Your task to perform on an android device: find photos in the google photos app Image 0: 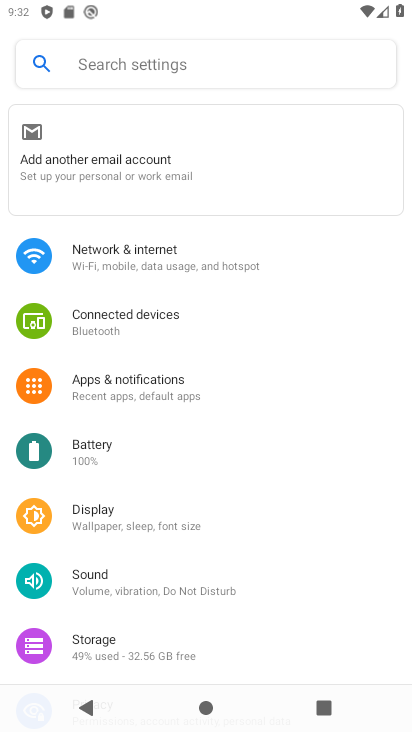
Step 0: drag from (345, 543) to (334, 378)
Your task to perform on an android device: find photos in the google photos app Image 1: 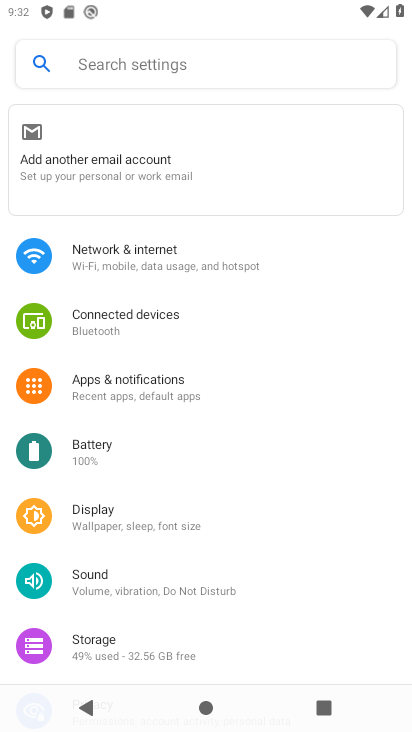
Step 1: drag from (346, 649) to (347, 324)
Your task to perform on an android device: find photos in the google photos app Image 2: 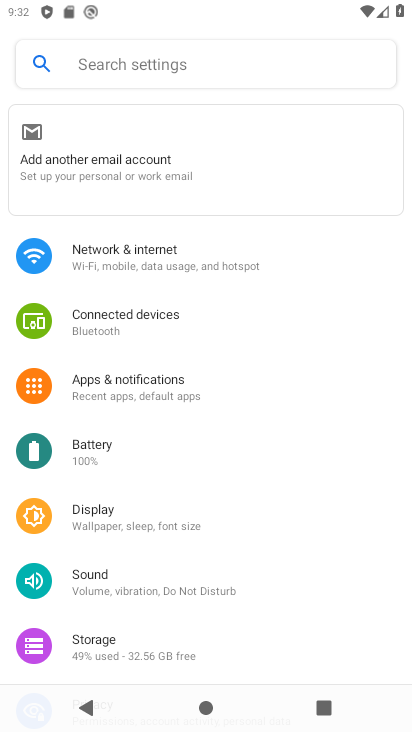
Step 2: click (325, 239)
Your task to perform on an android device: find photos in the google photos app Image 3: 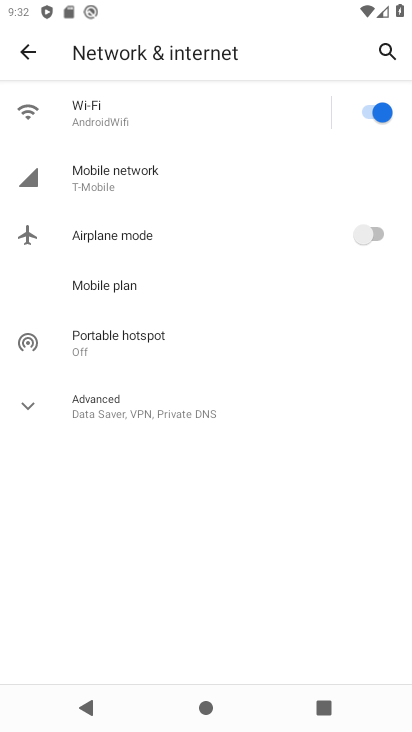
Step 3: drag from (359, 637) to (353, 374)
Your task to perform on an android device: find photos in the google photos app Image 4: 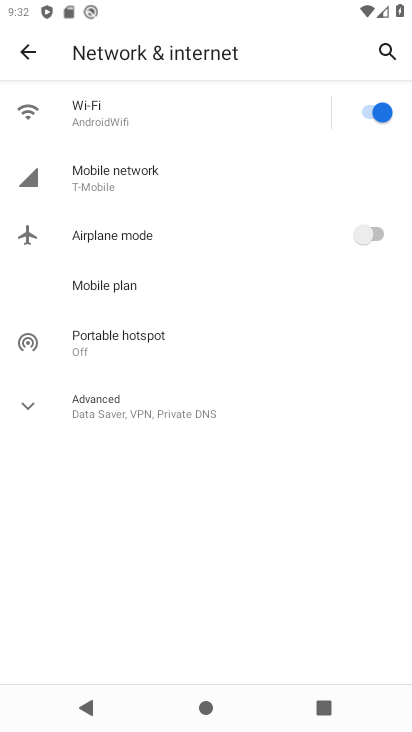
Step 4: click (29, 48)
Your task to perform on an android device: find photos in the google photos app Image 5: 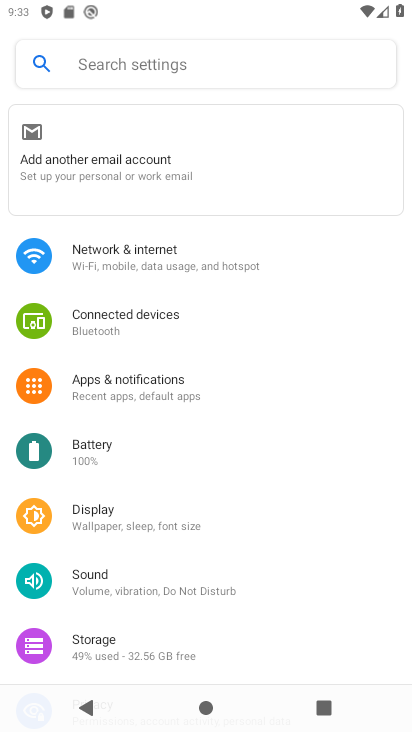
Step 5: drag from (330, 561) to (314, 261)
Your task to perform on an android device: find photos in the google photos app Image 6: 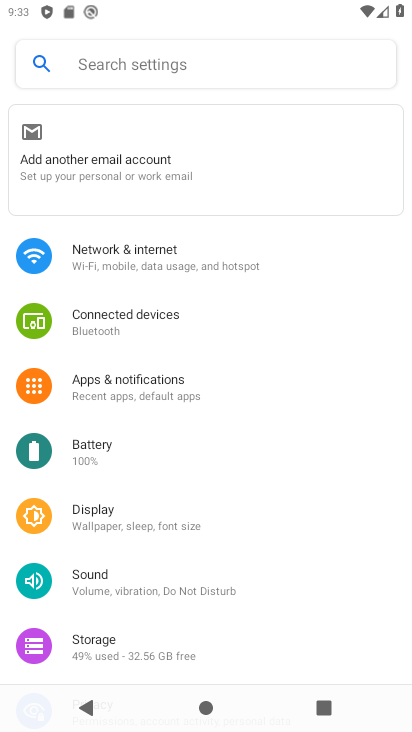
Step 6: press home button
Your task to perform on an android device: find photos in the google photos app Image 7: 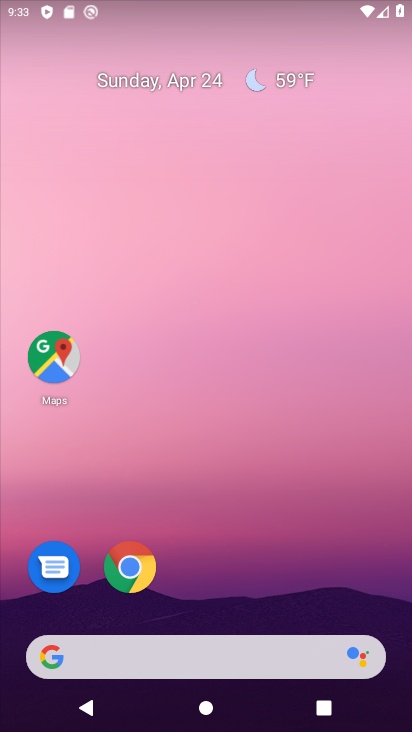
Step 7: click (352, 223)
Your task to perform on an android device: find photos in the google photos app Image 8: 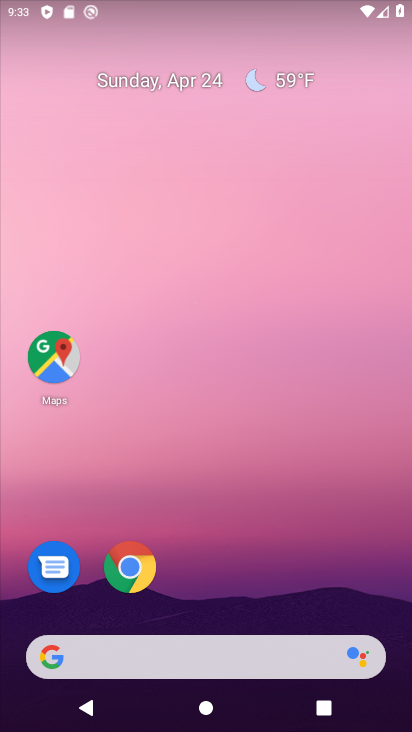
Step 8: drag from (382, 586) to (380, 246)
Your task to perform on an android device: find photos in the google photos app Image 9: 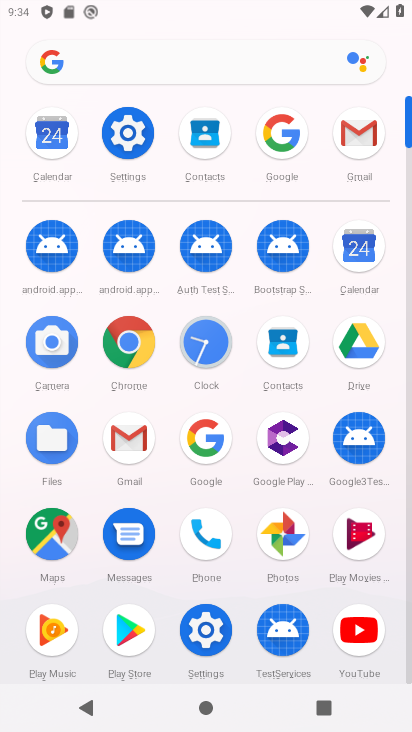
Step 9: click (287, 543)
Your task to perform on an android device: find photos in the google photos app Image 10: 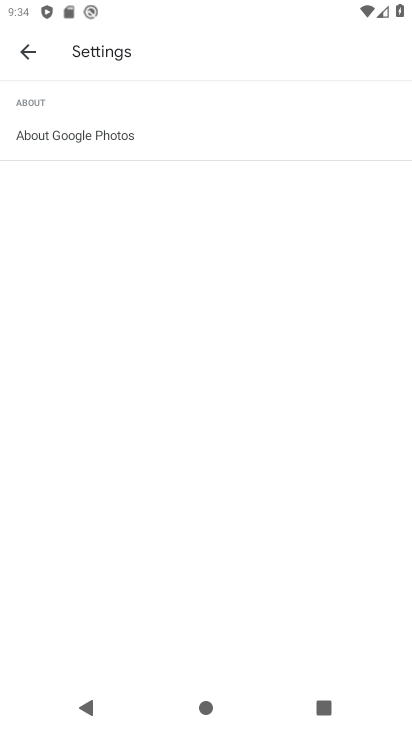
Step 10: click (24, 52)
Your task to perform on an android device: find photos in the google photos app Image 11: 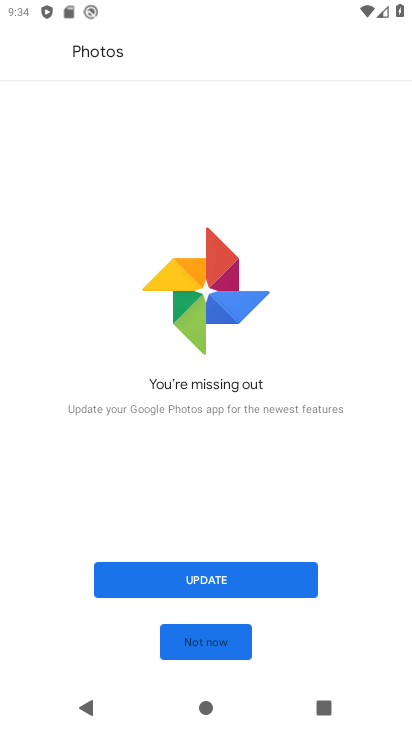
Step 11: click (143, 571)
Your task to perform on an android device: find photos in the google photos app Image 12: 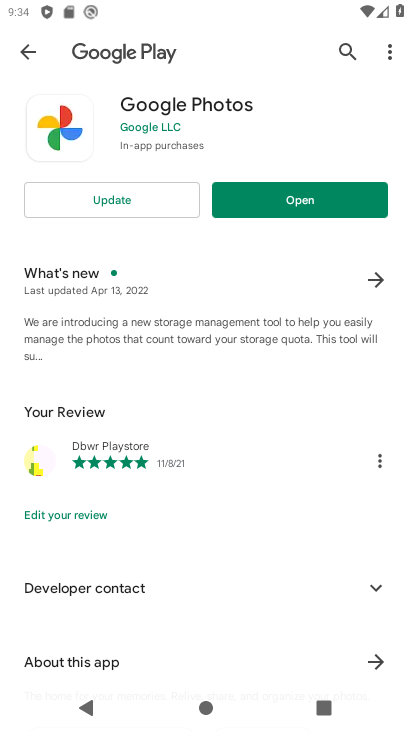
Step 12: click (256, 196)
Your task to perform on an android device: find photos in the google photos app Image 13: 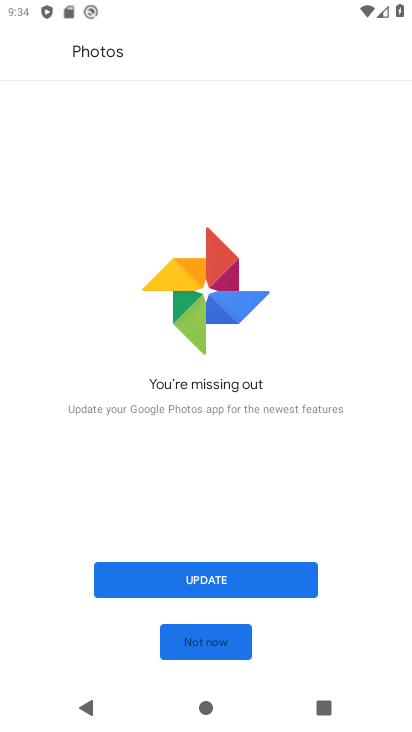
Step 13: click (55, 203)
Your task to perform on an android device: find photos in the google photos app Image 14: 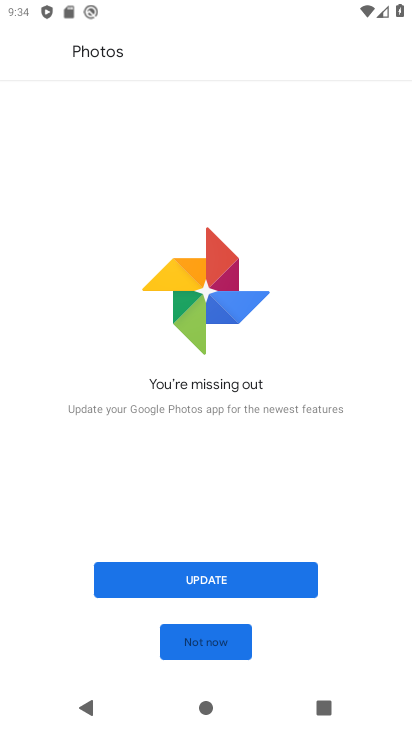
Step 14: click (176, 571)
Your task to perform on an android device: find photos in the google photos app Image 15: 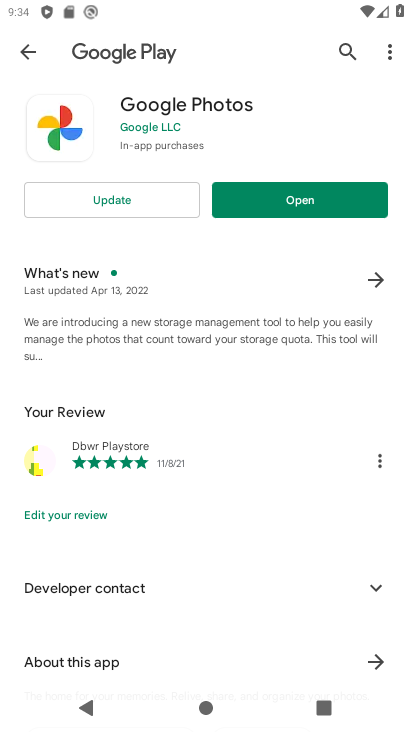
Step 15: click (96, 191)
Your task to perform on an android device: find photos in the google photos app Image 16: 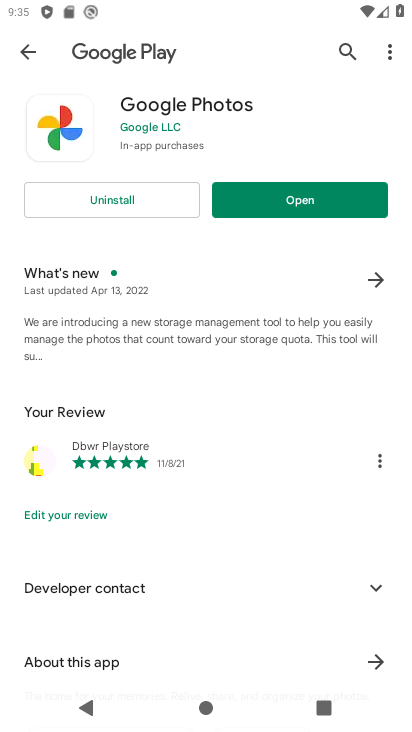
Step 16: click (230, 201)
Your task to perform on an android device: find photos in the google photos app Image 17: 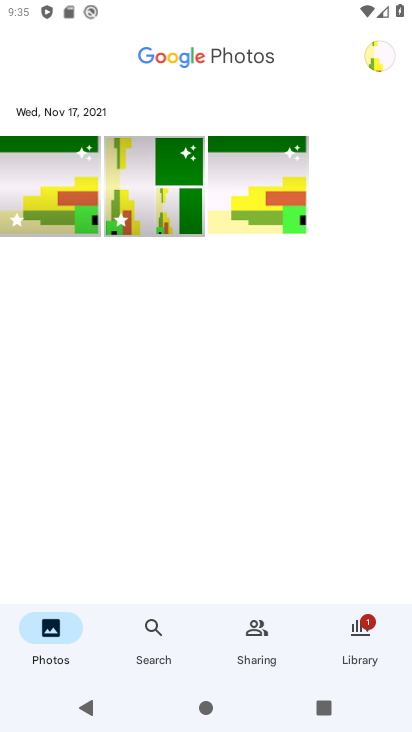
Step 17: click (49, 189)
Your task to perform on an android device: find photos in the google photos app Image 18: 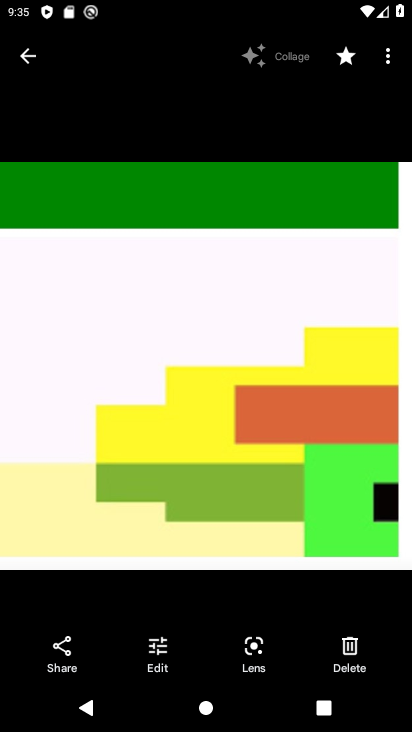
Step 18: click (25, 57)
Your task to perform on an android device: find photos in the google photos app Image 19: 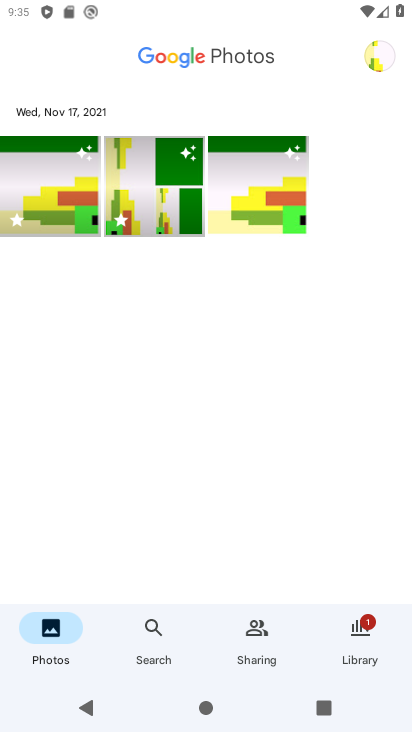
Step 19: click (158, 188)
Your task to perform on an android device: find photos in the google photos app Image 20: 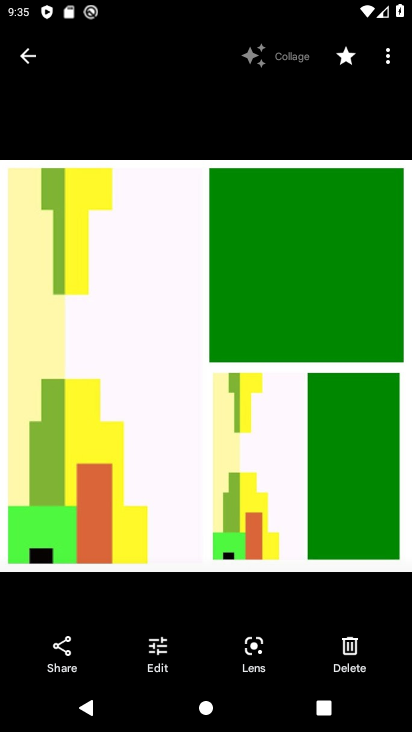
Step 20: click (27, 57)
Your task to perform on an android device: find photos in the google photos app Image 21: 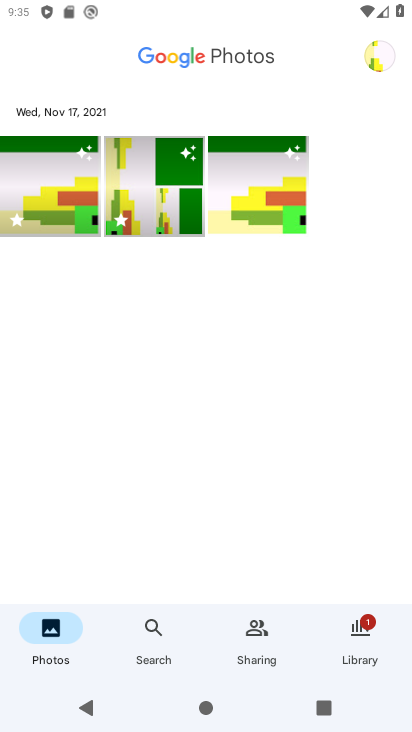
Step 21: click (223, 179)
Your task to perform on an android device: find photos in the google photos app Image 22: 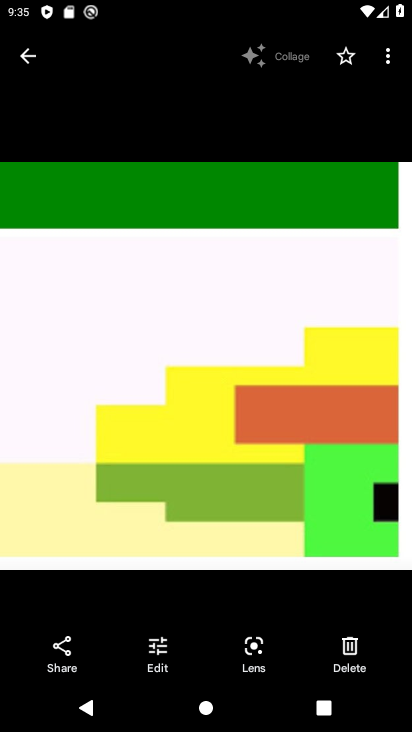
Step 22: click (28, 60)
Your task to perform on an android device: find photos in the google photos app Image 23: 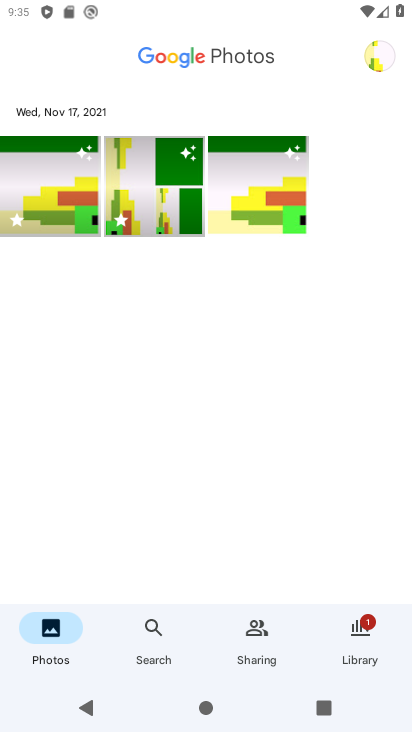
Step 23: task complete